Your task to perform on an android device: Turn on the flashlight Image 0: 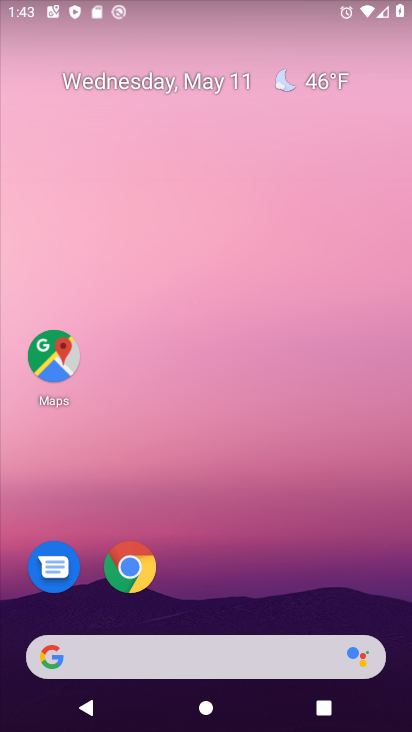
Step 0: drag from (224, 614) to (132, 79)
Your task to perform on an android device: Turn on the flashlight Image 1: 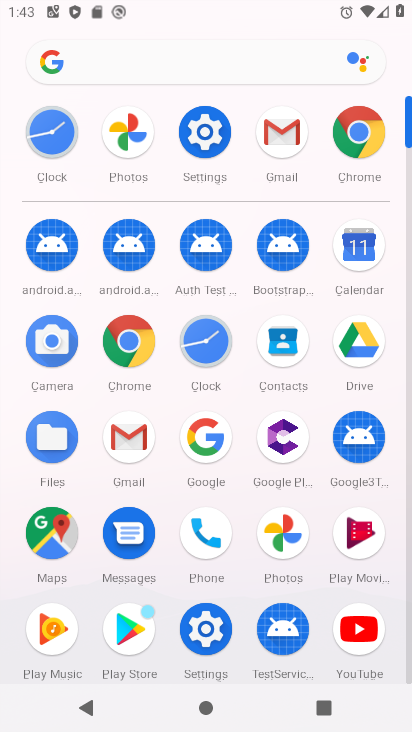
Step 1: click (196, 139)
Your task to perform on an android device: Turn on the flashlight Image 2: 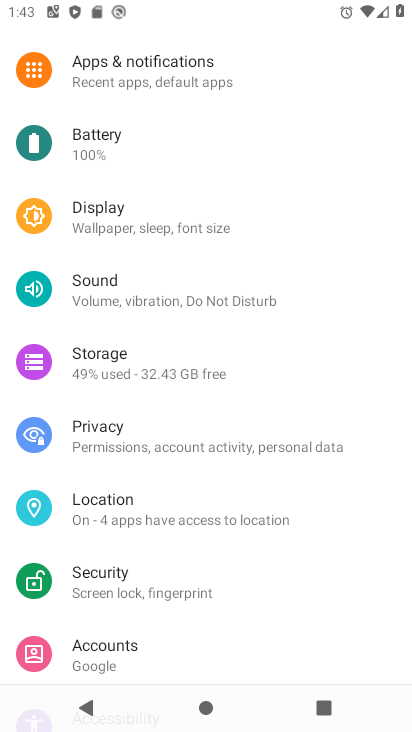
Step 2: task complete